Your task to perform on an android device: Open location settings Image 0: 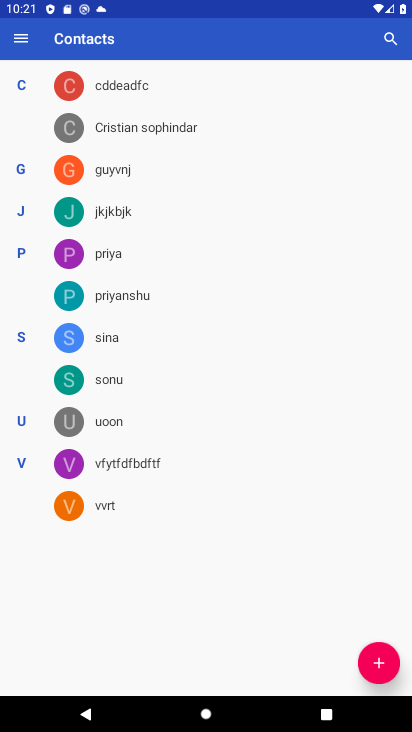
Step 0: press home button
Your task to perform on an android device: Open location settings Image 1: 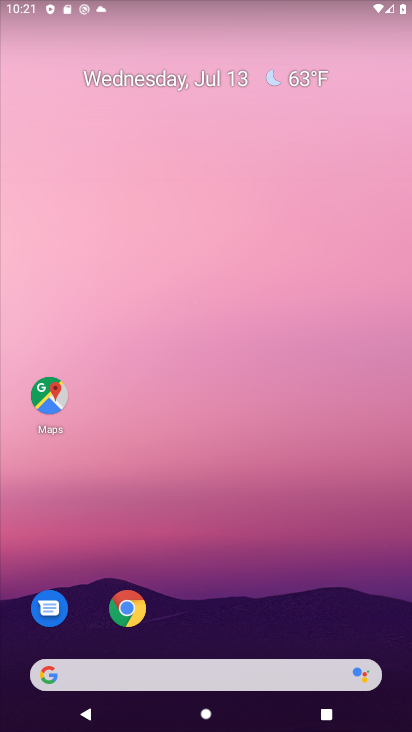
Step 1: drag from (227, 651) to (322, 77)
Your task to perform on an android device: Open location settings Image 2: 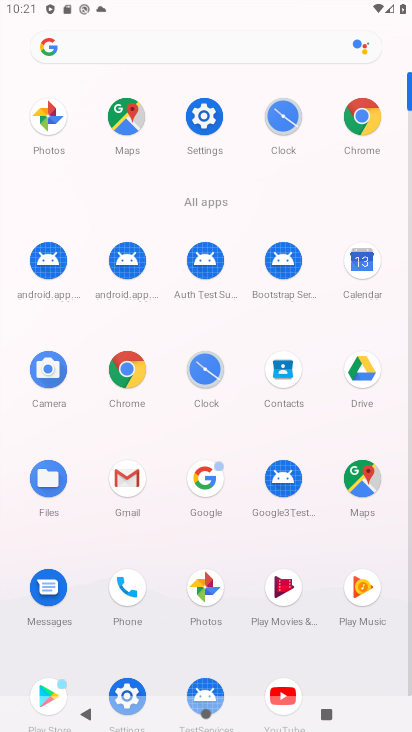
Step 2: drag from (147, 627) to (205, 419)
Your task to perform on an android device: Open location settings Image 3: 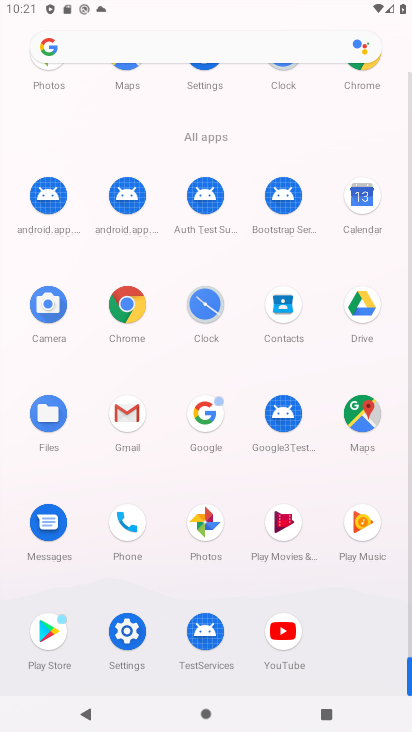
Step 3: click (124, 627)
Your task to perform on an android device: Open location settings Image 4: 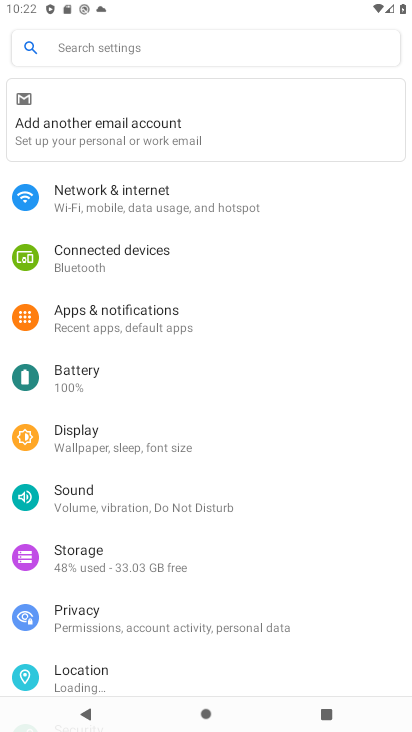
Step 4: drag from (108, 614) to (156, 376)
Your task to perform on an android device: Open location settings Image 5: 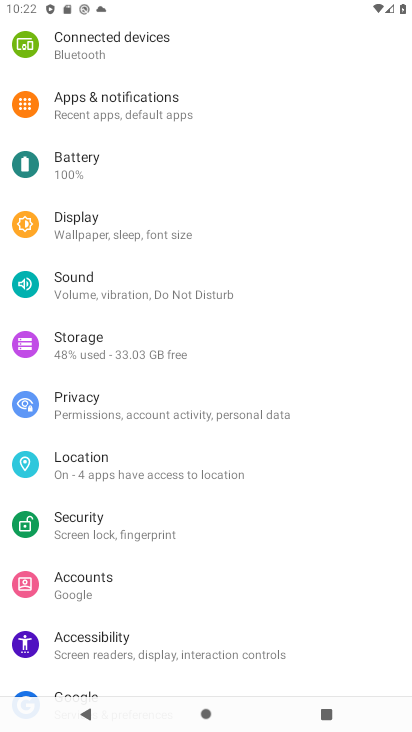
Step 5: click (88, 464)
Your task to perform on an android device: Open location settings Image 6: 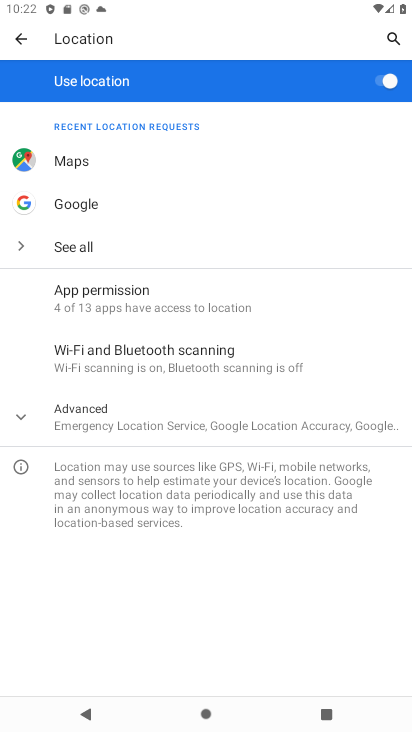
Step 6: task complete